Your task to perform on an android device: find which apps use the phone's location Image 0: 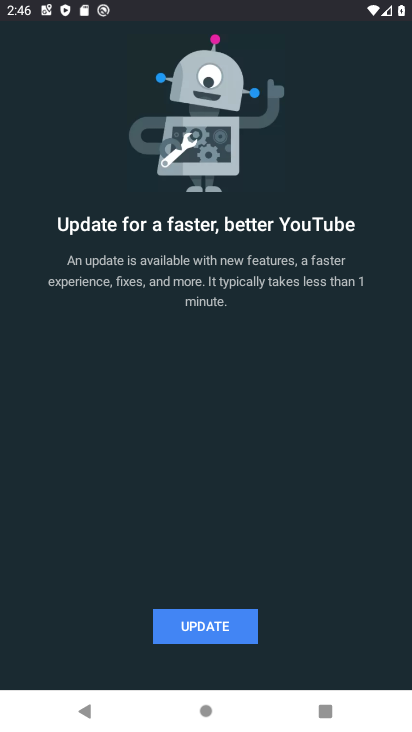
Step 0: press home button
Your task to perform on an android device: find which apps use the phone's location Image 1: 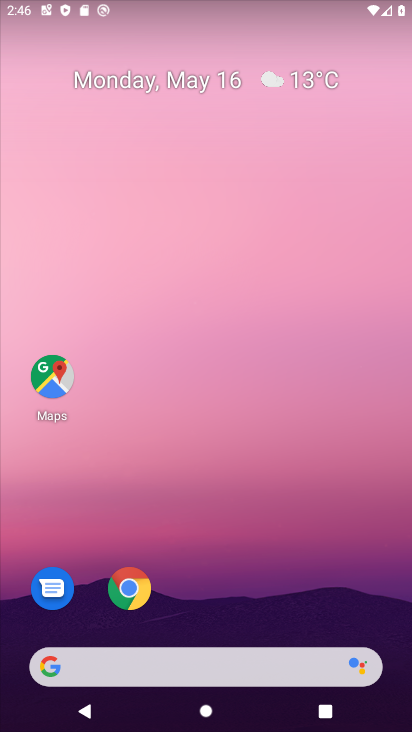
Step 1: drag from (312, 647) to (304, 30)
Your task to perform on an android device: find which apps use the phone's location Image 2: 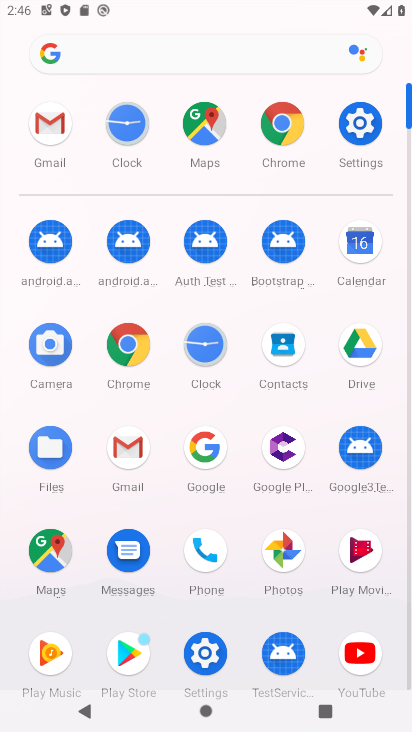
Step 2: click (349, 123)
Your task to perform on an android device: find which apps use the phone's location Image 3: 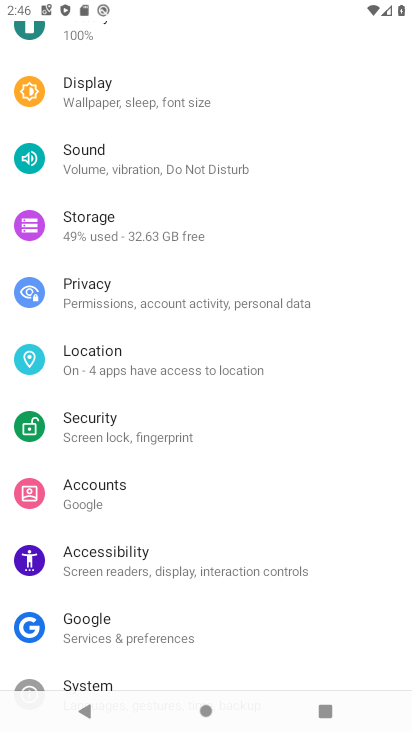
Step 3: drag from (177, 248) to (160, 568)
Your task to perform on an android device: find which apps use the phone's location Image 4: 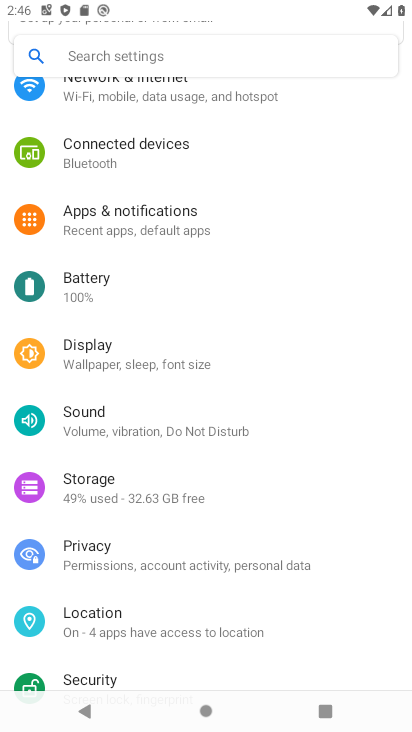
Step 4: click (117, 602)
Your task to perform on an android device: find which apps use the phone's location Image 5: 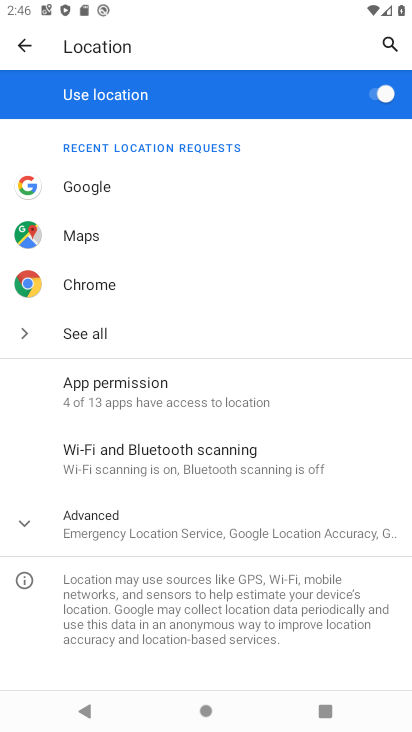
Step 5: click (200, 394)
Your task to perform on an android device: find which apps use the phone's location Image 6: 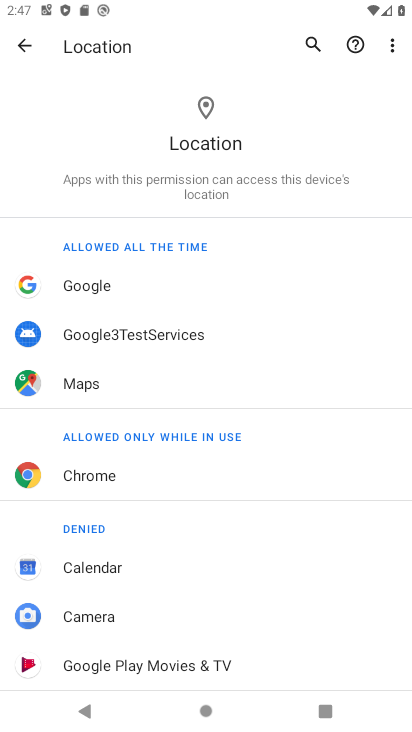
Step 6: task complete